Your task to perform on an android device: open a bookmark in the chrome app Image 0: 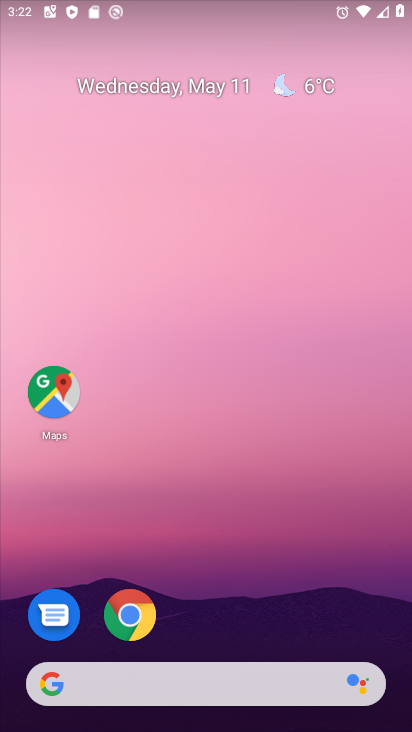
Step 0: drag from (250, 613) to (224, 130)
Your task to perform on an android device: open a bookmark in the chrome app Image 1: 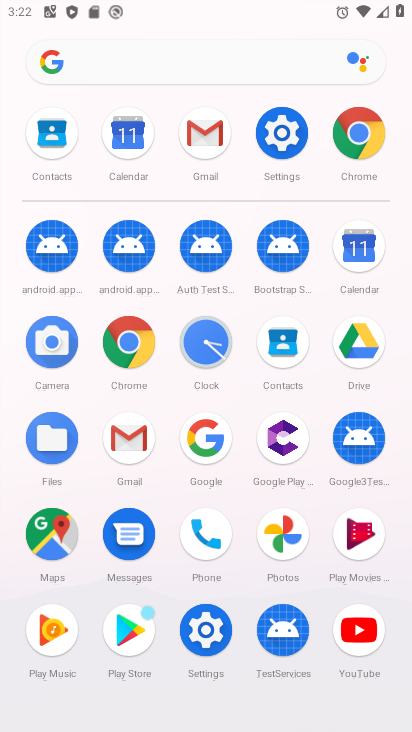
Step 1: click (133, 336)
Your task to perform on an android device: open a bookmark in the chrome app Image 2: 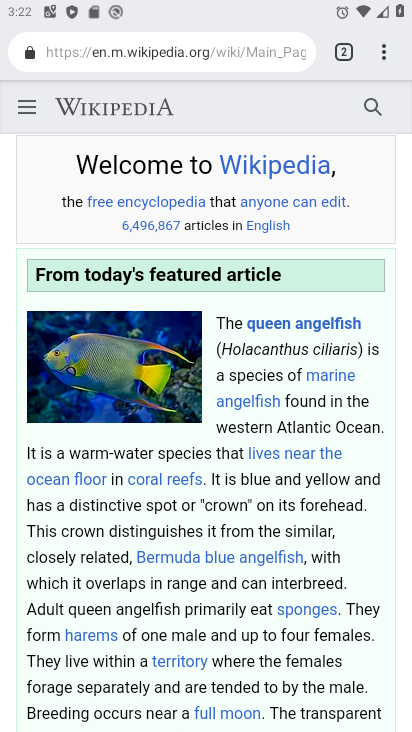
Step 2: click (193, 49)
Your task to perform on an android device: open a bookmark in the chrome app Image 3: 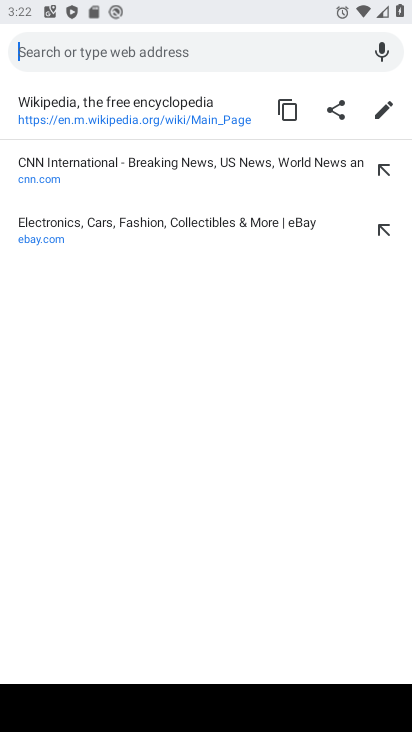
Step 3: press back button
Your task to perform on an android device: open a bookmark in the chrome app Image 4: 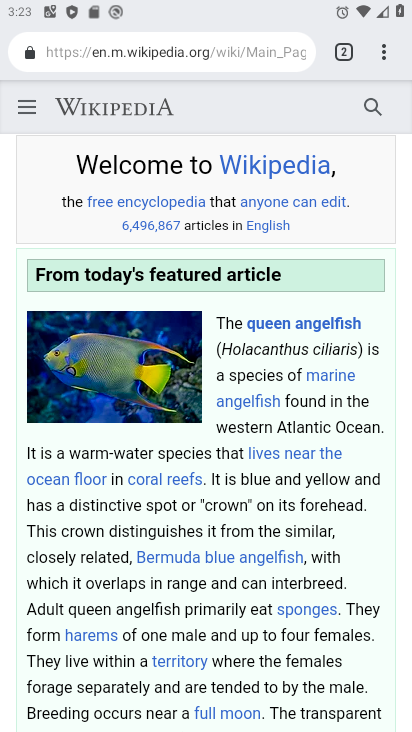
Step 4: drag from (379, 49) to (195, 194)
Your task to perform on an android device: open a bookmark in the chrome app Image 5: 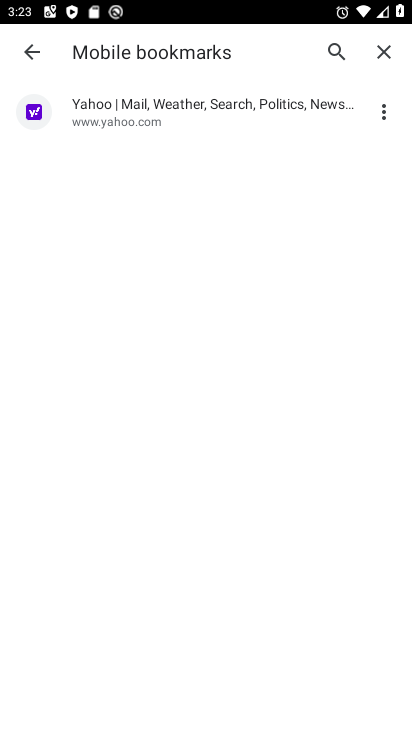
Step 5: click (135, 104)
Your task to perform on an android device: open a bookmark in the chrome app Image 6: 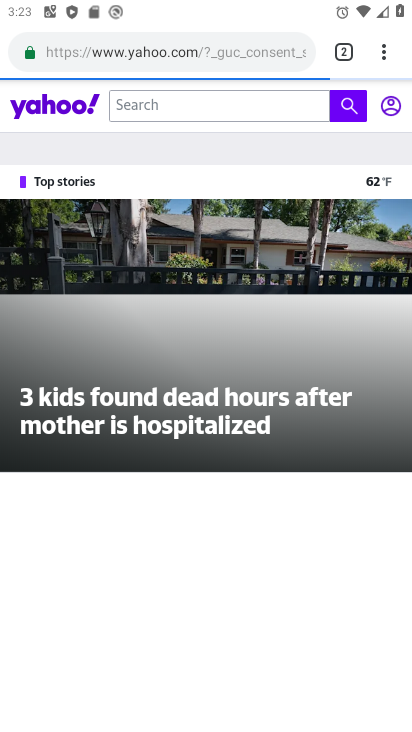
Step 6: task complete